Your task to perform on an android device: turn on location history Image 0: 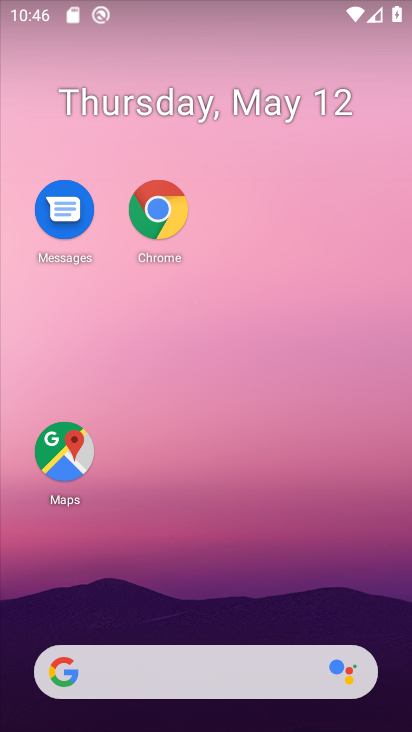
Step 0: drag from (209, 607) to (145, 150)
Your task to perform on an android device: turn on location history Image 1: 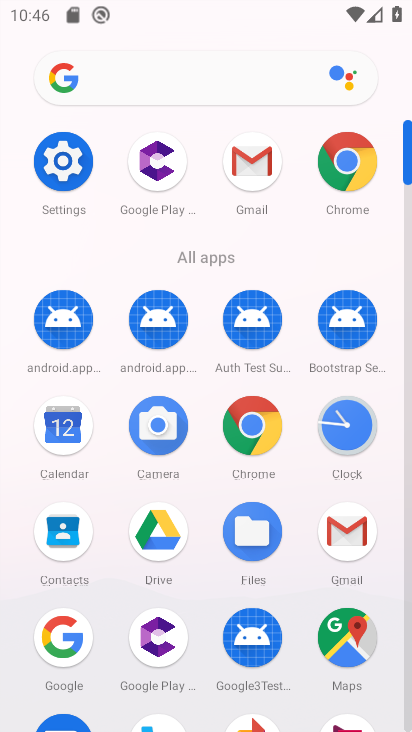
Step 1: click (75, 169)
Your task to perform on an android device: turn on location history Image 2: 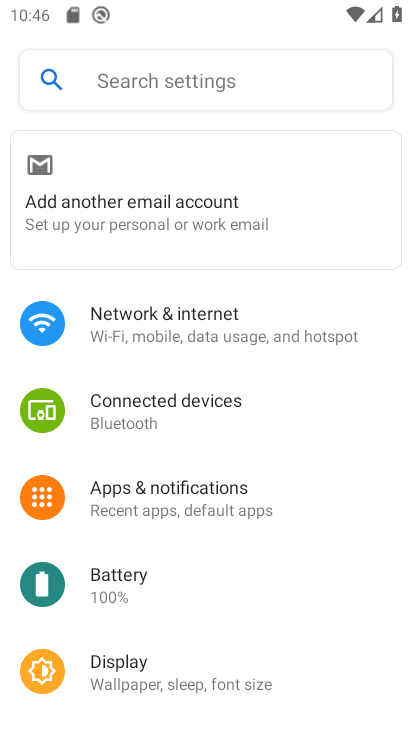
Step 2: drag from (212, 607) to (146, 239)
Your task to perform on an android device: turn on location history Image 3: 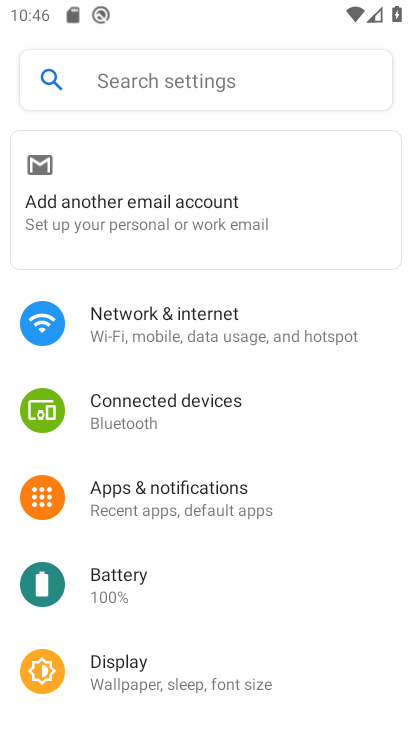
Step 3: drag from (187, 506) to (172, 316)
Your task to perform on an android device: turn on location history Image 4: 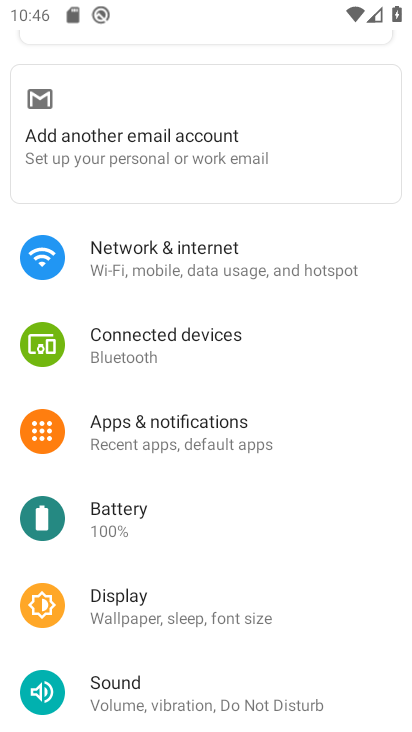
Step 4: drag from (165, 622) to (136, 388)
Your task to perform on an android device: turn on location history Image 5: 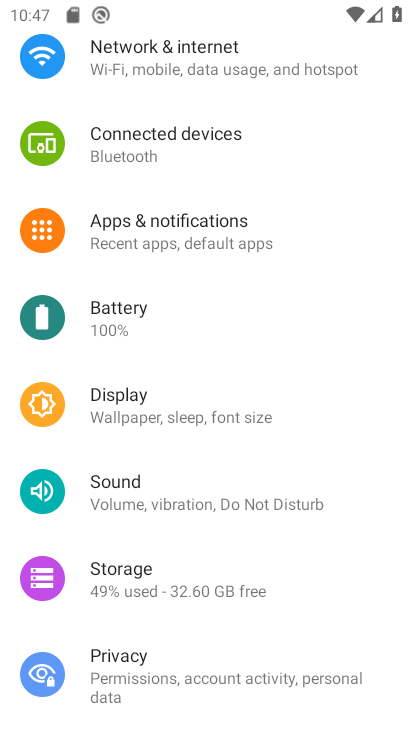
Step 5: drag from (125, 598) to (127, 256)
Your task to perform on an android device: turn on location history Image 6: 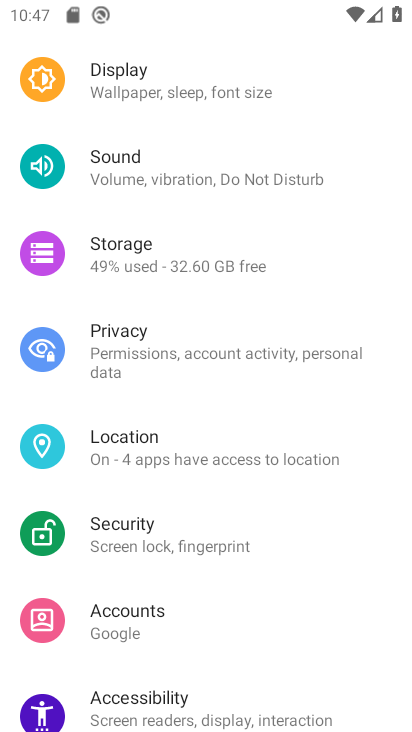
Step 6: click (147, 461)
Your task to perform on an android device: turn on location history Image 7: 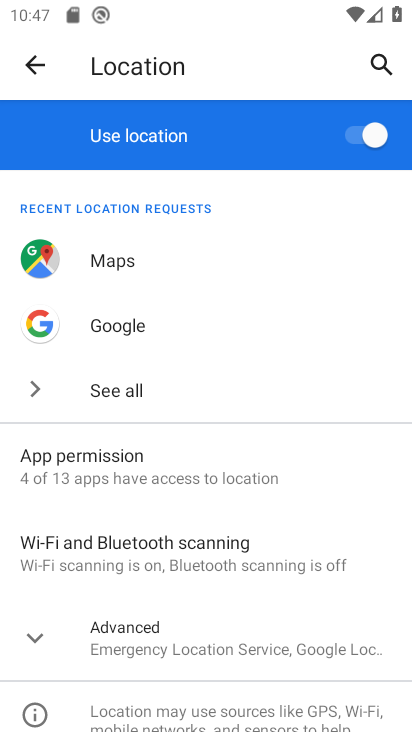
Step 7: drag from (162, 559) to (131, 283)
Your task to perform on an android device: turn on location history Image 8: 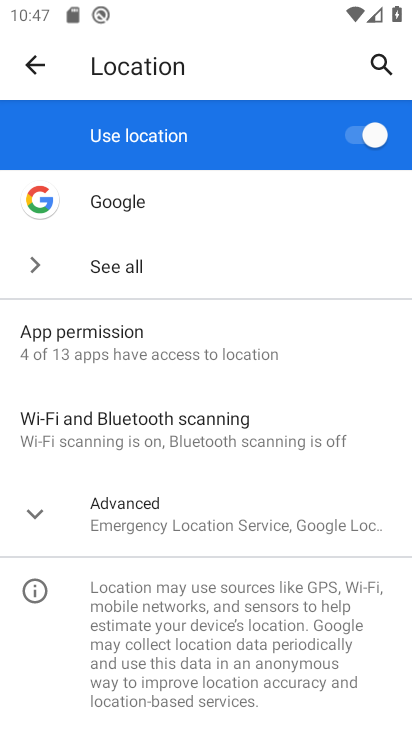
Step 8: click (129, 513)
Your task to perform on an android device: turn on location history Image 9: 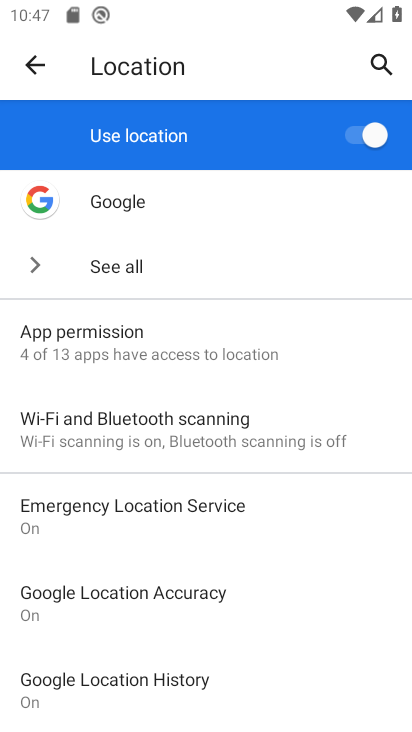
Step 9: click (134, 695)
Your task to perform on an android device: turn on location history Image 10: 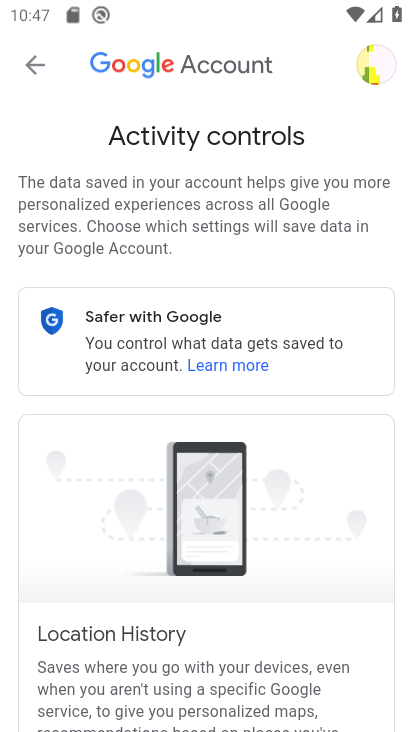
Step 10: task complete